Your task to perform on an android device: move an email to a new category in the gmail app Image 0: 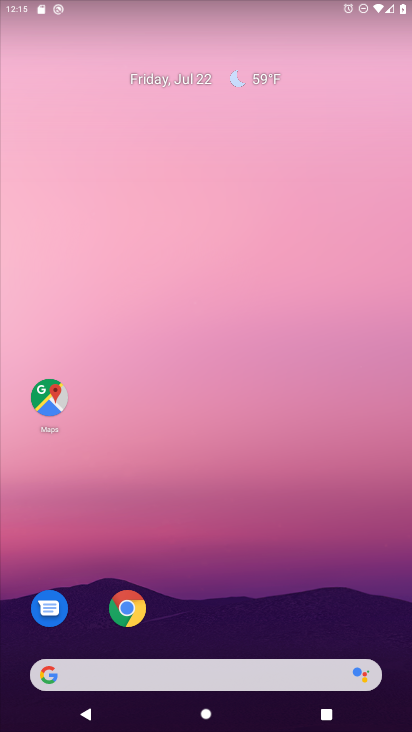
Step 0: drag from (347, 593) to (181, 74)
Your task to perform on an android device: move an email to a new category in the gmail app Image 1: 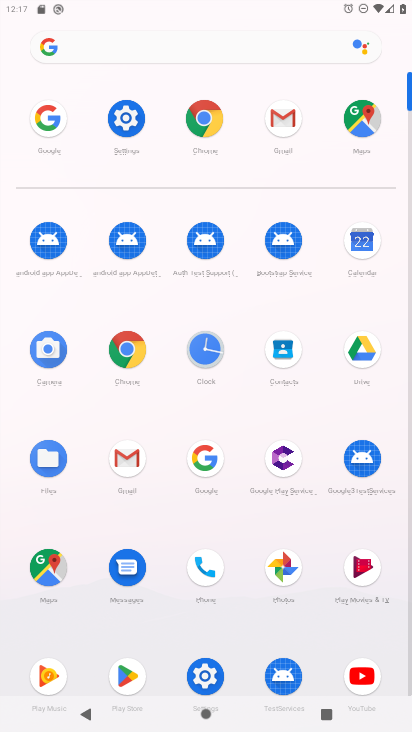
Step 1: click (133, 462)
Your task to perform on an android device: move an email to a new category in the gmail app Image 2: 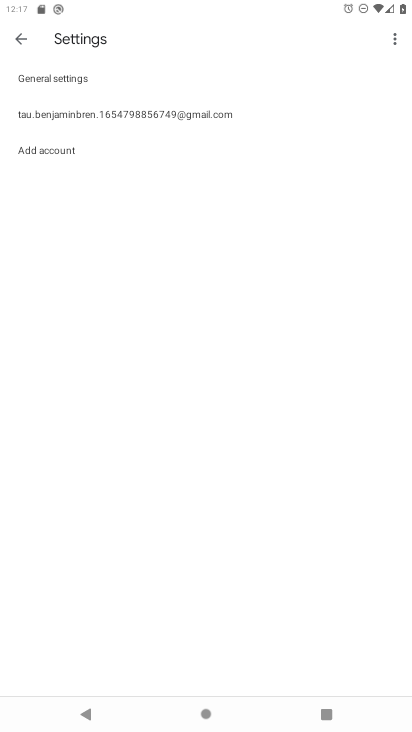
Step 2: task complete